Your task to perform on an android device: Is it going to rain today? Image 0: 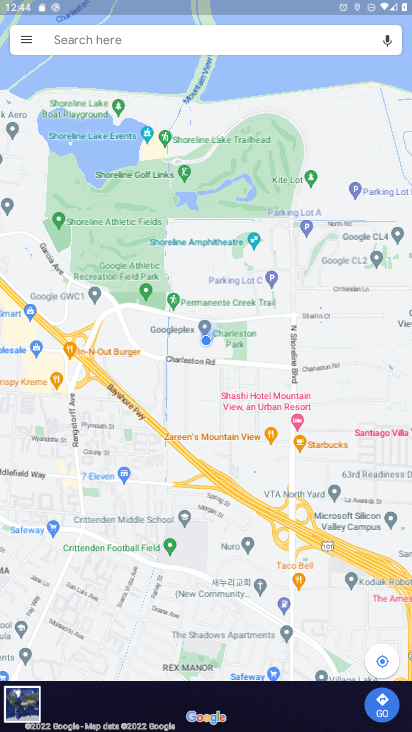
Step 0: drag from (208, 374) to (347, 106)
Your task to perform on an android device: Is it going to rain today? Image 1: 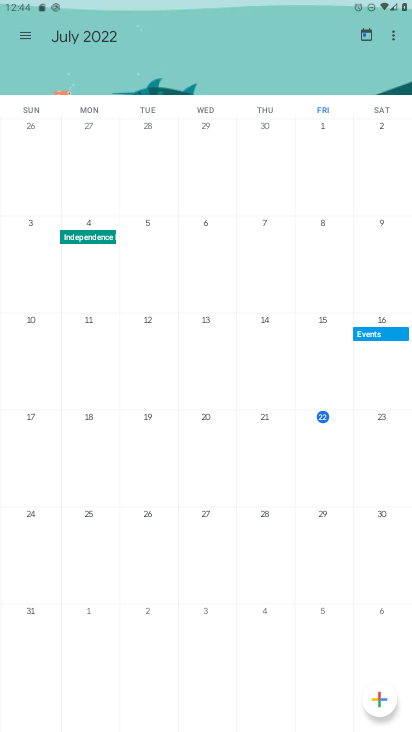
Step 1: press home button
Your task to perform on an android device: Is it going to rain today? Image 2: 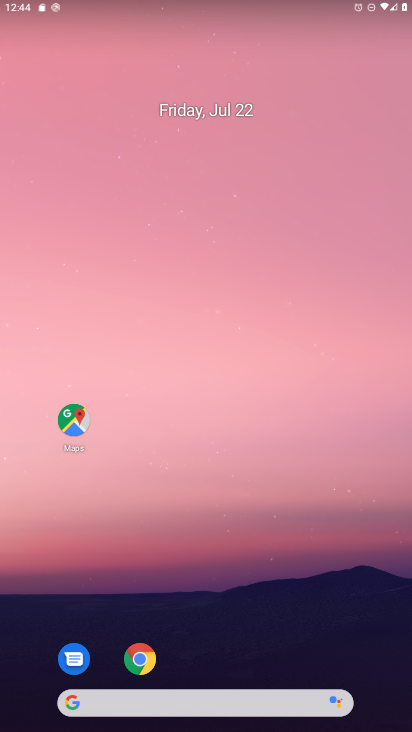
Step 2: drag from (285, 721) to (312, 251)
Your task to perform on an android device: Is it going to rain today? Image 3: 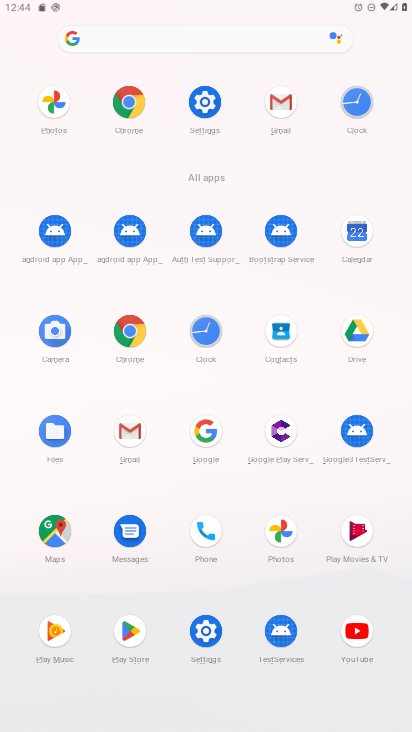
Step 3: click (135, 34)
Your task to perform on an android device: Is it going to rain today? Image 4: 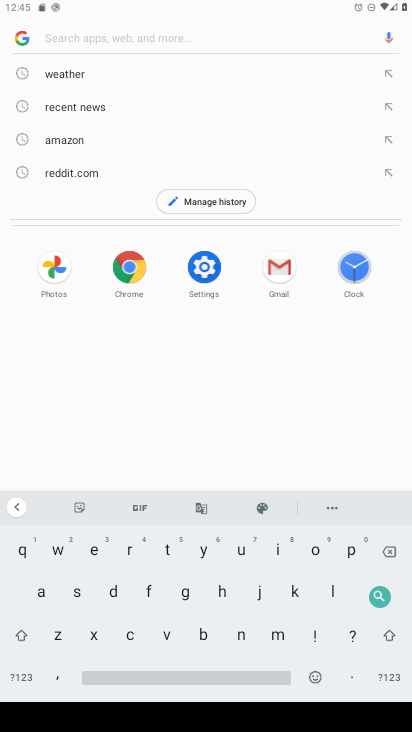
Step 4: click (278, 553)
Your task to perform on an android device: Is it going to rain today? Image 5: 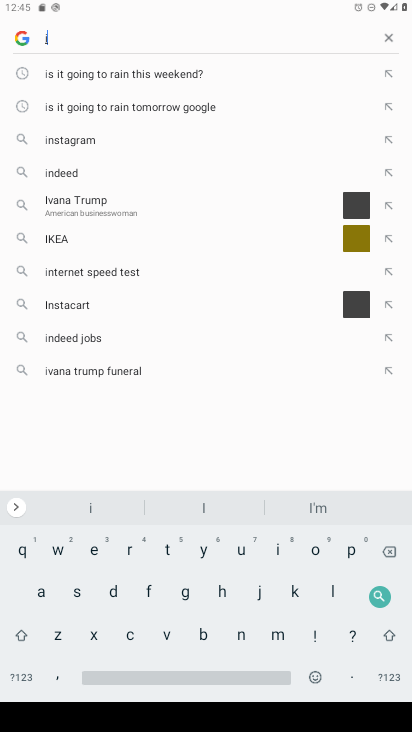
Step 5: click (72, 594)
Your task to perform on an android device: Is it going to rain today? Image 6: 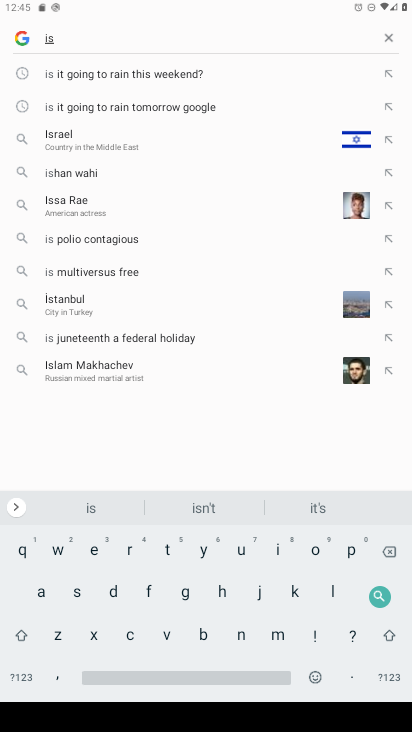
Step 6: click (91, 509)
Your task to perform on an android device: Is it going to rain today? Image 7: 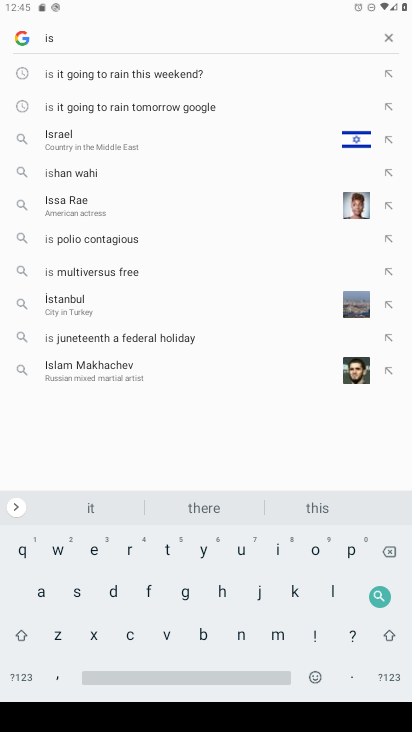
Step 7: click (276, 547)
Your task to perform on an android device: Is it going to rain today? Image 8: 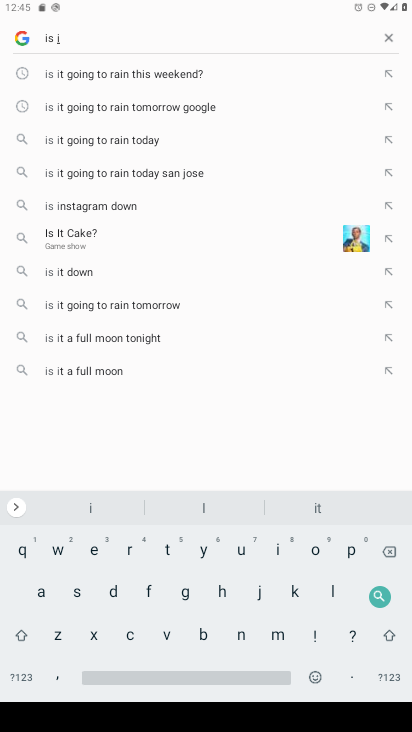
Step 8: click (312, 503)
Your task to perform on an android device: Is it going to rain today? Image 9: 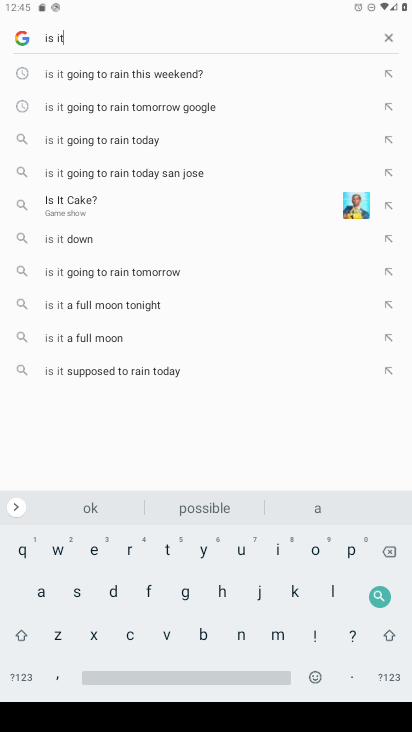
Step 9: click (189, 591)
Your task to perform on an android device: Is it going to rain today? Image 10: 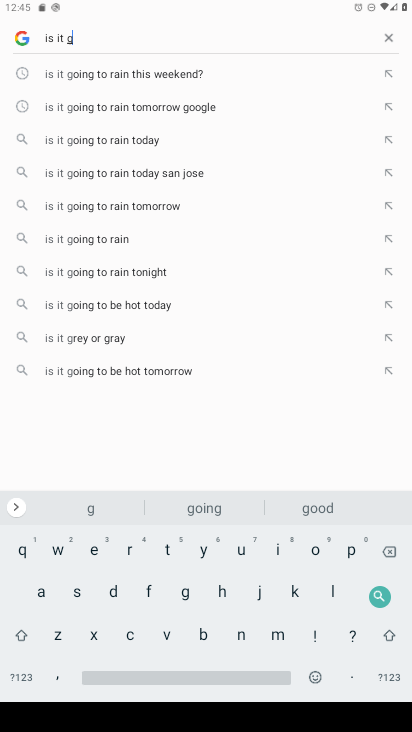
Step 10: click (207, 512)
Your task to perform on an android device: Is it going to rain today? Image 11: 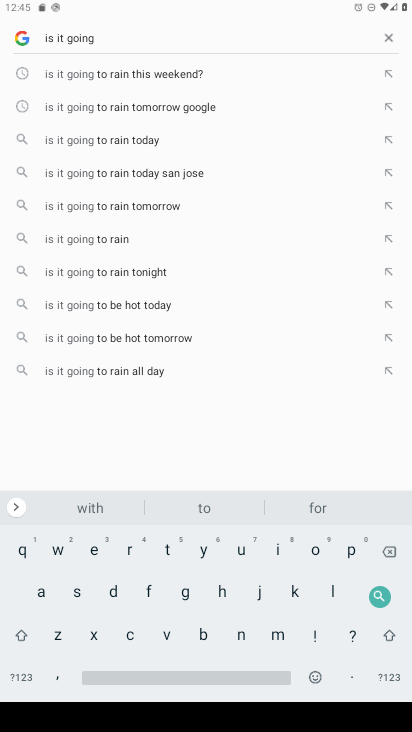
Step 11: click (130, 146)
Your task to perform on an android device: Is it going to rain today? Image 12: 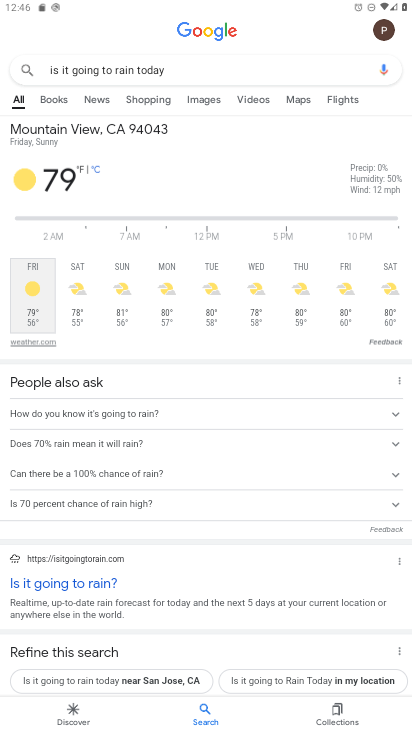
Step 12: task complete